Your task to perform on an android device: clear all cookies in the chrome app Image 0: 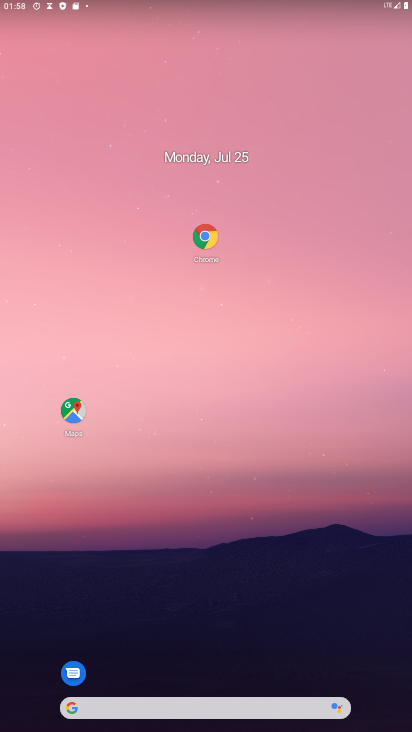
Step 0: drag from (237, 712) to (252, 9)
Your task to perform on an android device: clear all cookies in the chrome app Image 1: 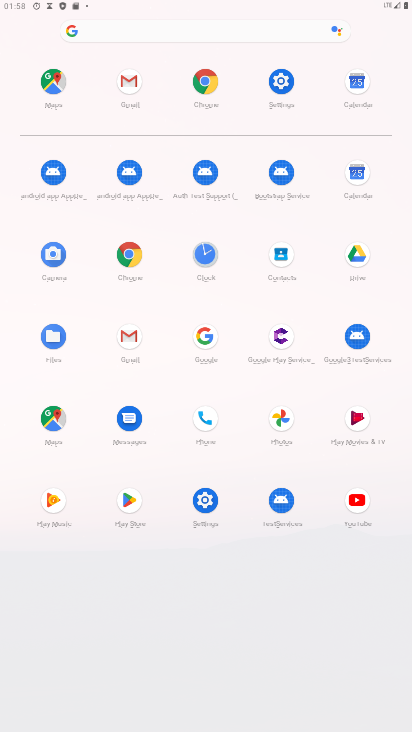
Step 1: click (132, 265)
Your task to perform on an android device: clear all cookies in the chrome app Image 2: 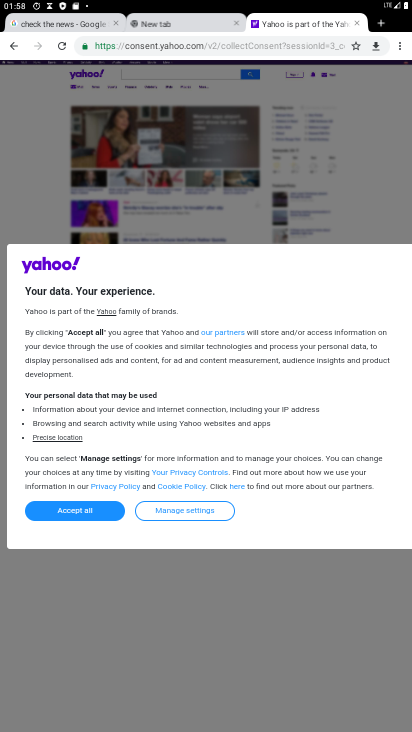
Step 2: drag from (404, 42) to (309, 138)
Your task to perform on an android device: clear all cookies in the chrome app Image 3: 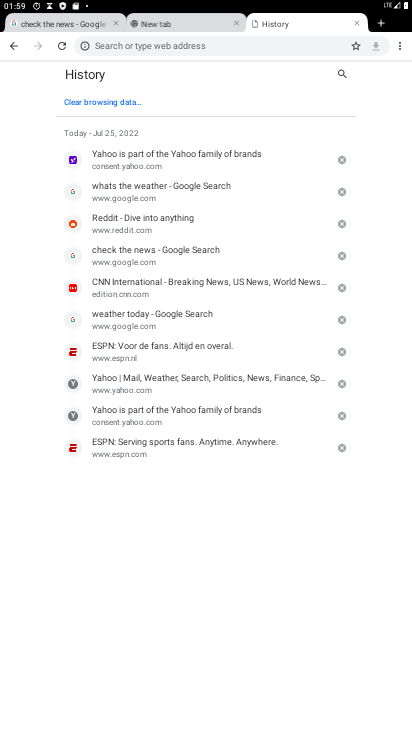
Step 3: click (98, 95)
Your task to perform on an android device: clear all cookies in the chrome app Image 4: 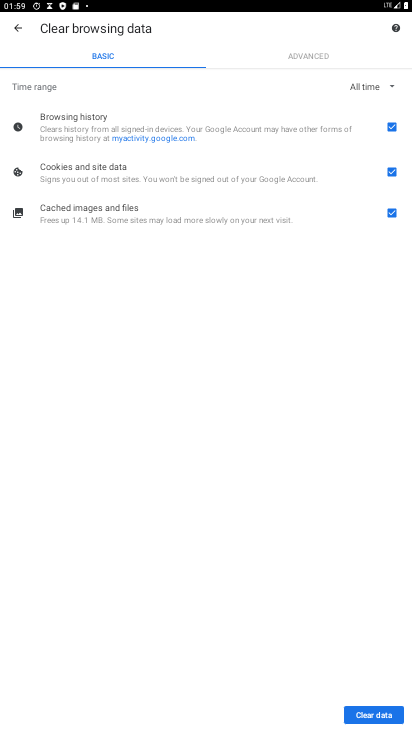
Step 4: click (383, 711)
Your task to perform on an android device: clear all cookies in the chrome app Image 5: 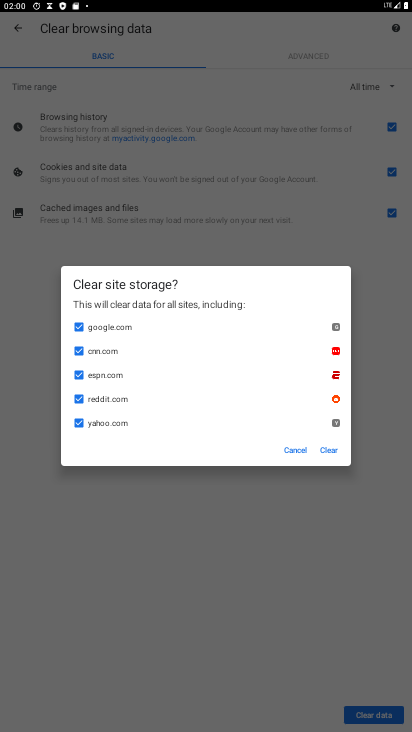
Step 5: click (332, 449)
Your task to perform on an android device: clear all cookies in the chrome app Image 6: 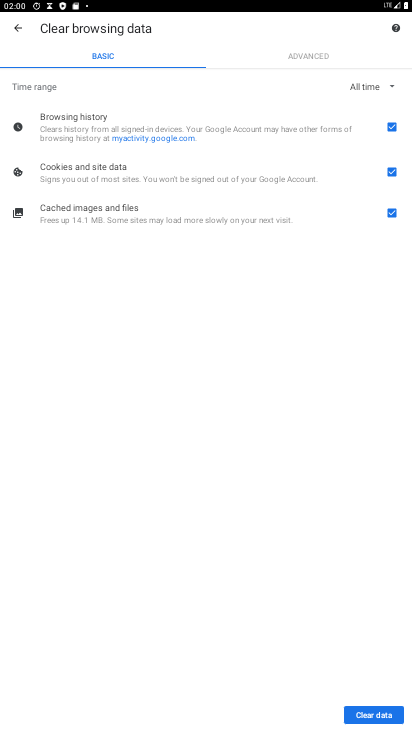
Step 6: task complete